Your task to perform on an android device: Go to calendar. Show me events next week Image 0: 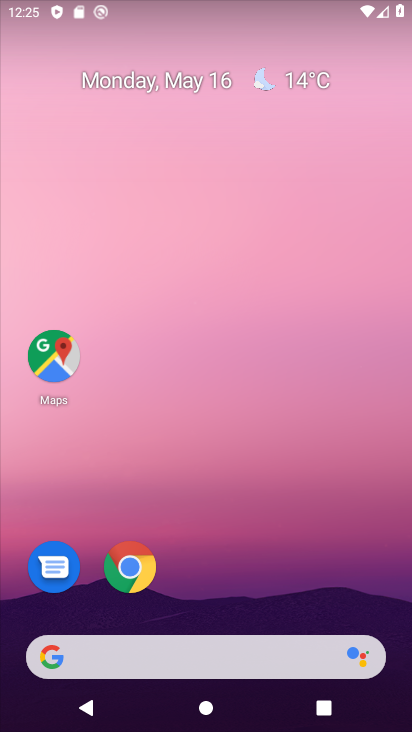
Step 0: drag from (274, 571) to (181, 172)
Your task to perform on an android device: Go to calendar. Show me events next week Image 1: 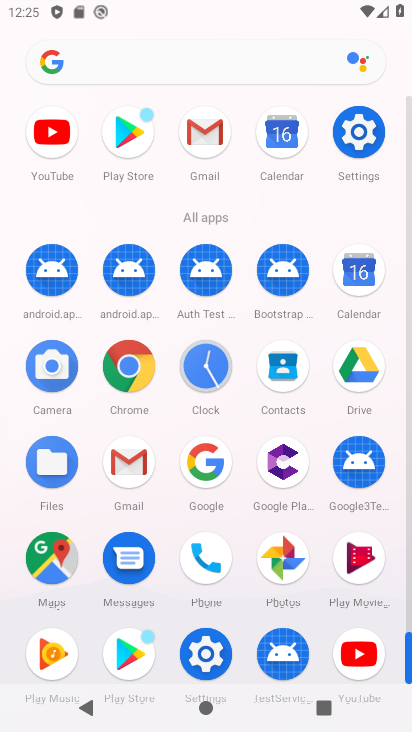
Step 1: click (351, 258)
Your task to perform on an android device: Go to calendar. Show me events next week Image 2: 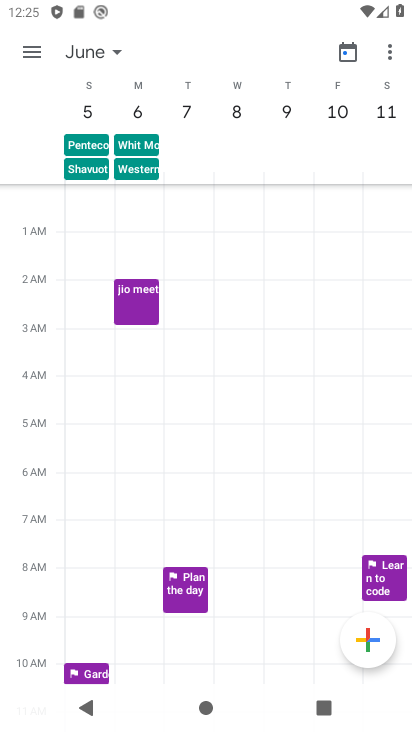
Step 2: click (117, 50)
Your task to perform on an android device: Go to calendar. Show me events next week Image 3: 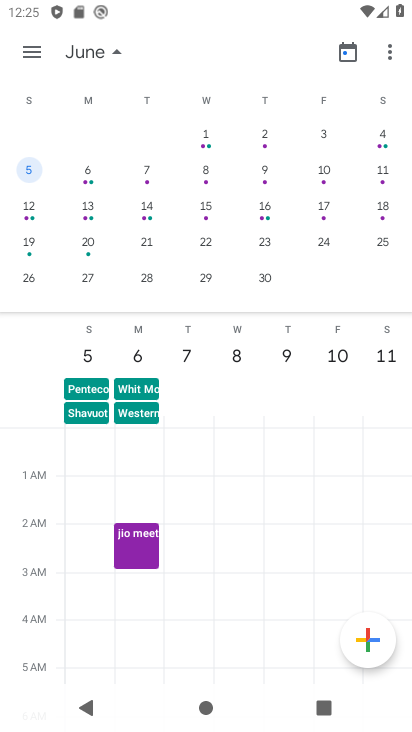
Step 3: drag from (46, 217) to (397, 200)
Your task to perform on an android device: Go to calendar. Show me events next week Image 4: 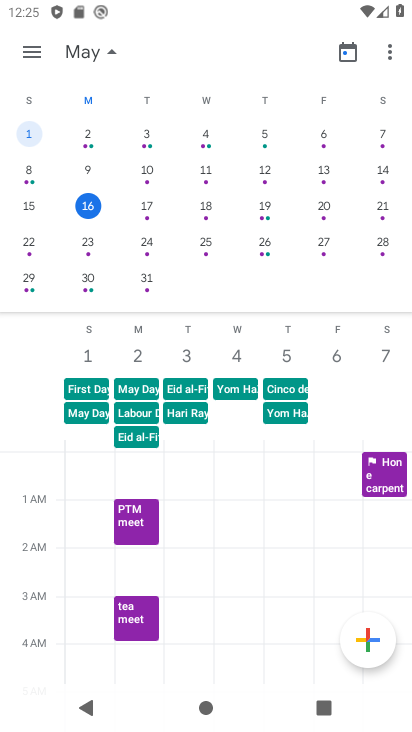
Step 4: click (89, 242)
Your task to perform on an android device: Go to calendar. Show me events next week Image 5: 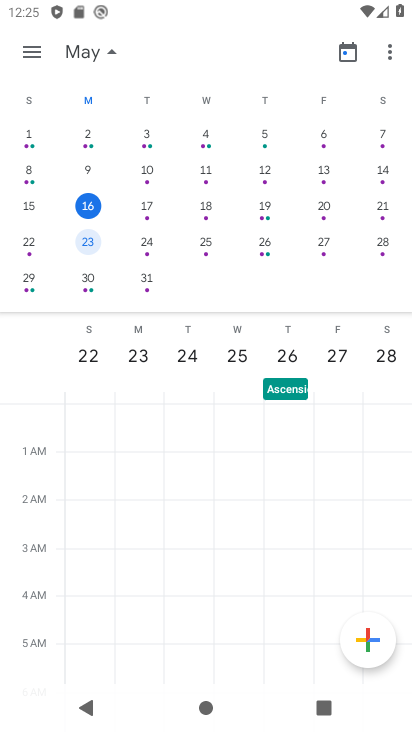
Step 5: task complete